Your task to perform on an android device: Open Android settings Image 0: 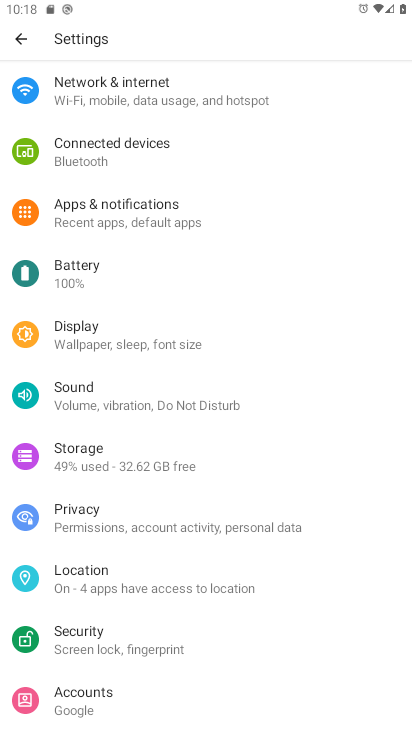
Step 0: press home button
Your task to perform on an android device: Open Android settings Image 1: 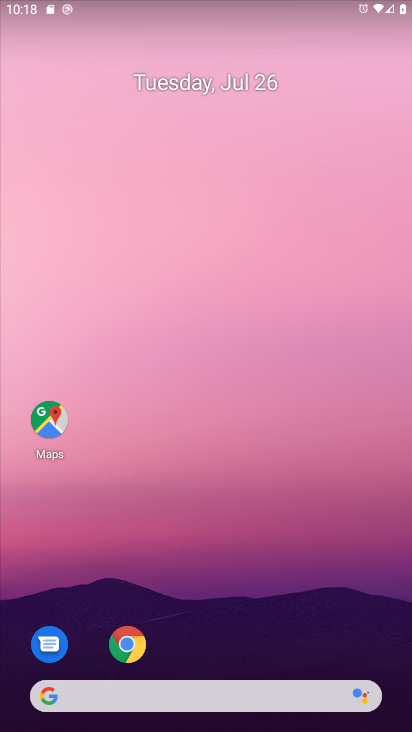
Step 1: drag from (208, 642) to (202, 224)
Your task to perform on an android device: Open Android settings Image 2: 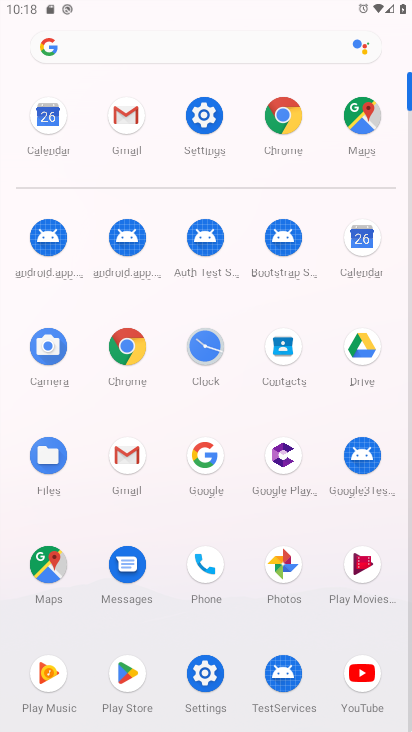
Step 2: click (215, 664)
Your task to perform on an android device: Open Android settings Image 3: 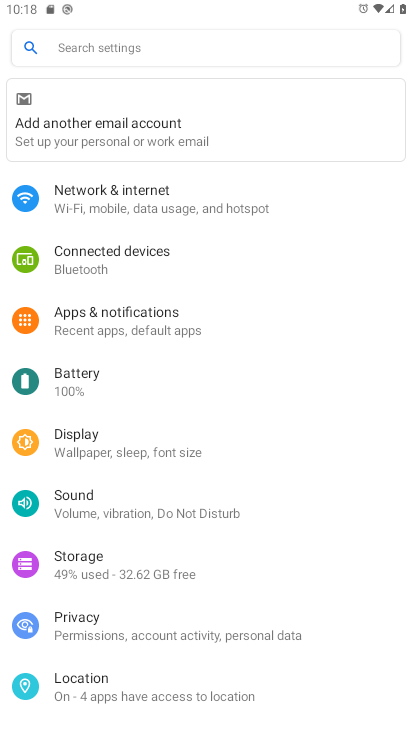
Step 3: drag from (145, 653) to (153, 396)
Your task to perform on an android device: Open Android settings Image 4: 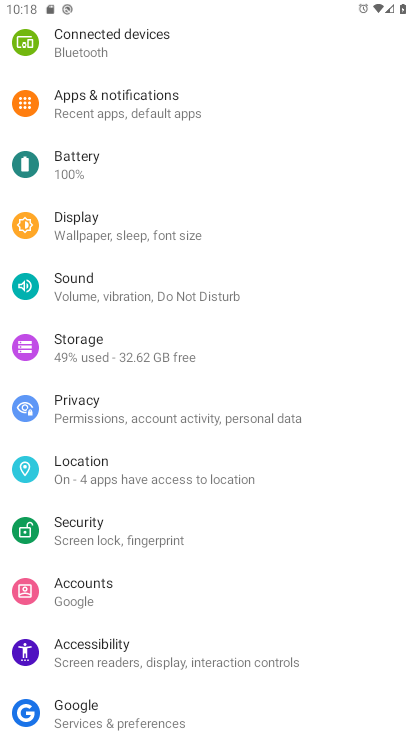
Step 4: drag from (128, 663) to (159, 431)
Your task to perform on an android device: Open Android settings Image 5: 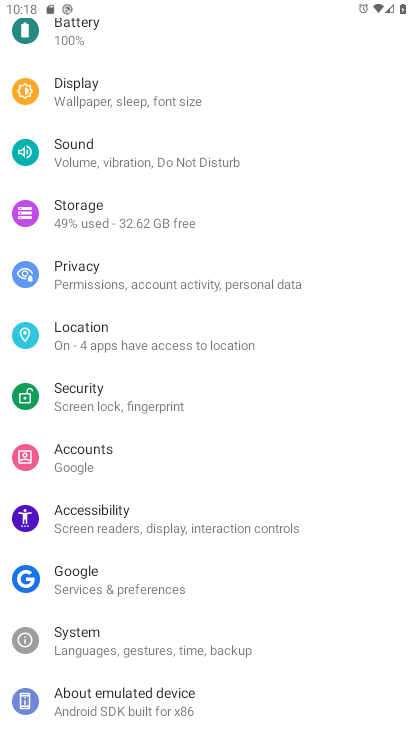
Step 5: drag from (116, 617) to (138, 397)
Your task to perform on an android device: Open Android settings Image 6: 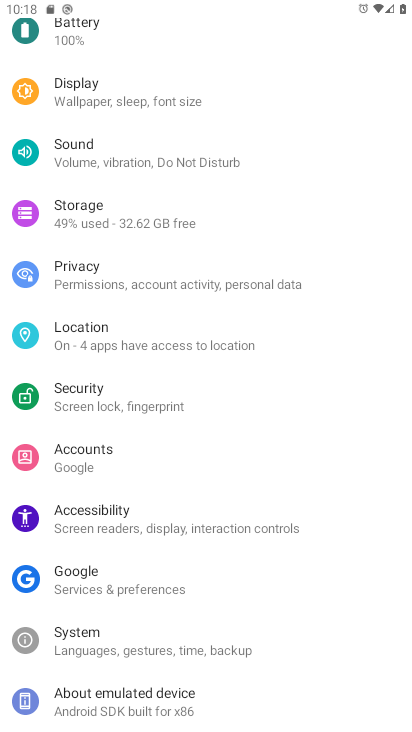
Step 6: click (127, 702)
Your task to perform on an android device: Open Android settings Image 7: 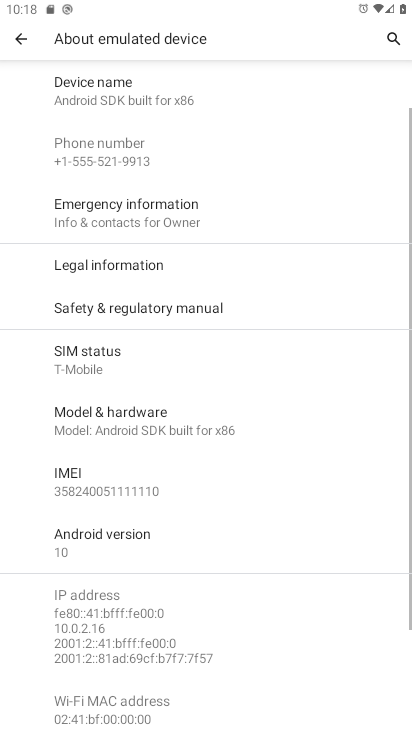
Step 7: click (105, 550)
Your task to perform on an android device: Open Android settings Image 8: 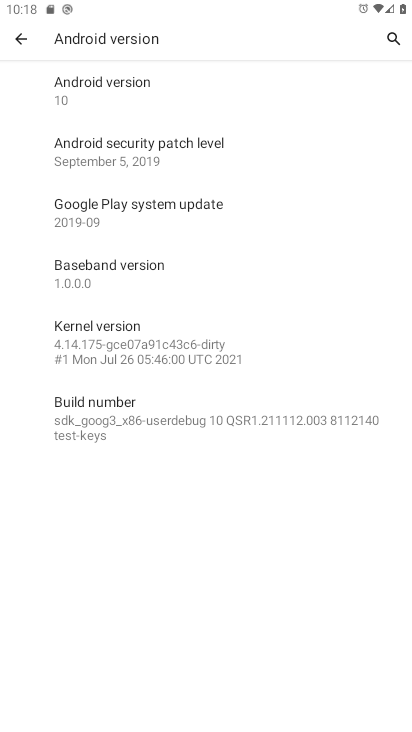
Step 8: task complete